Your task to perform on an android device: see tabs open on other devices in the chrome app Image 0: 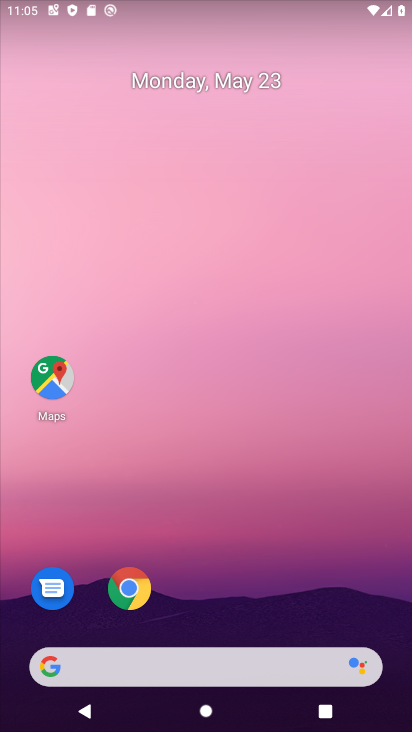
Step 0: click (128, 591)
Your task to perform on an android device: see tabs open on other devices in the chrome app Image 1: 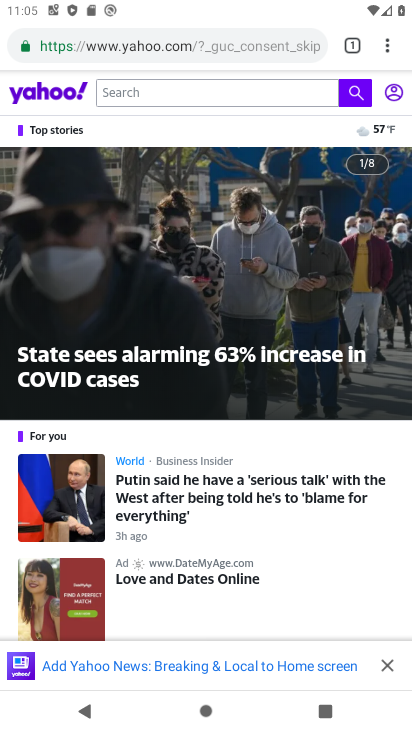
Step 1: task complete